Your task to perform on an android device: Toggle the flashlight Image 0: 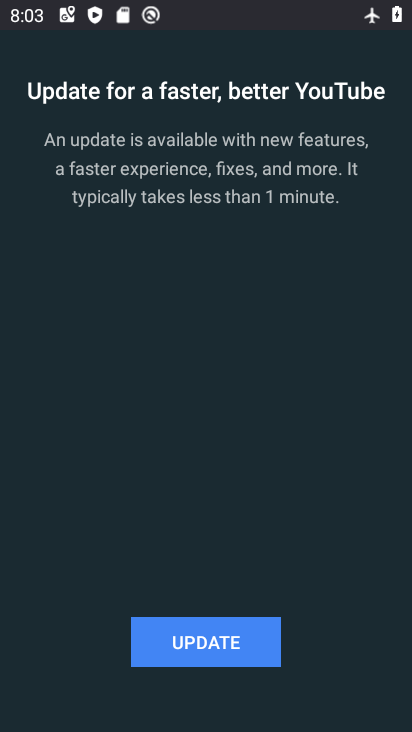
Step 0: press home button
Your task to perform on an android device: Toggle the flashlight Image 1: 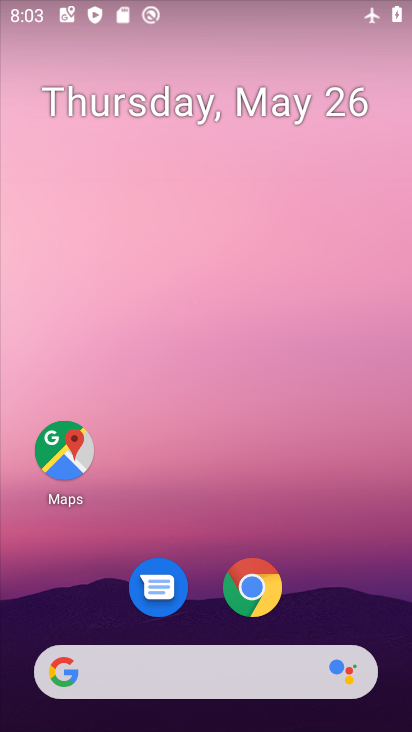
Step 1: drag from (220, 609) to (223, 284)
Your task to perform on an android device: Toggle the flashlight Image 2: 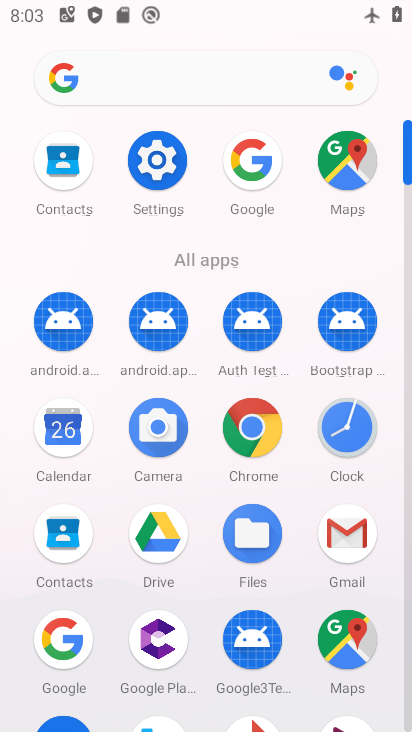
Step 2: click (156, 187)
Your task to perform on an android device: Toggle the flashlight Image 3: 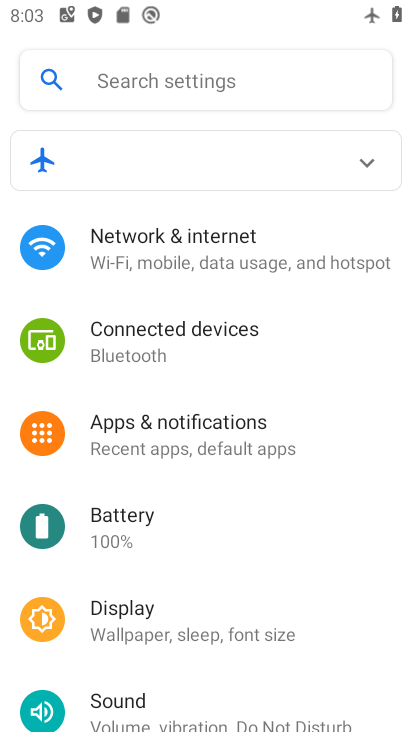
Step 3: task complete